Your task to perform on an android device: turn on location history Image 0: 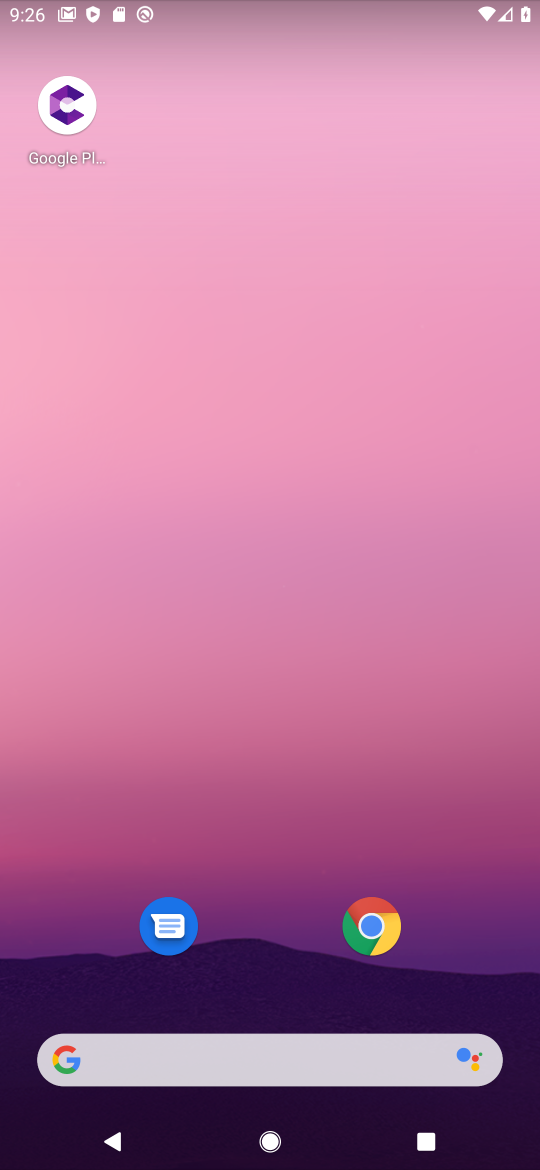
Step 0: drag from (299, 962) to (321, 306)
Your task to perform on an android device: turn on location history Image 1: 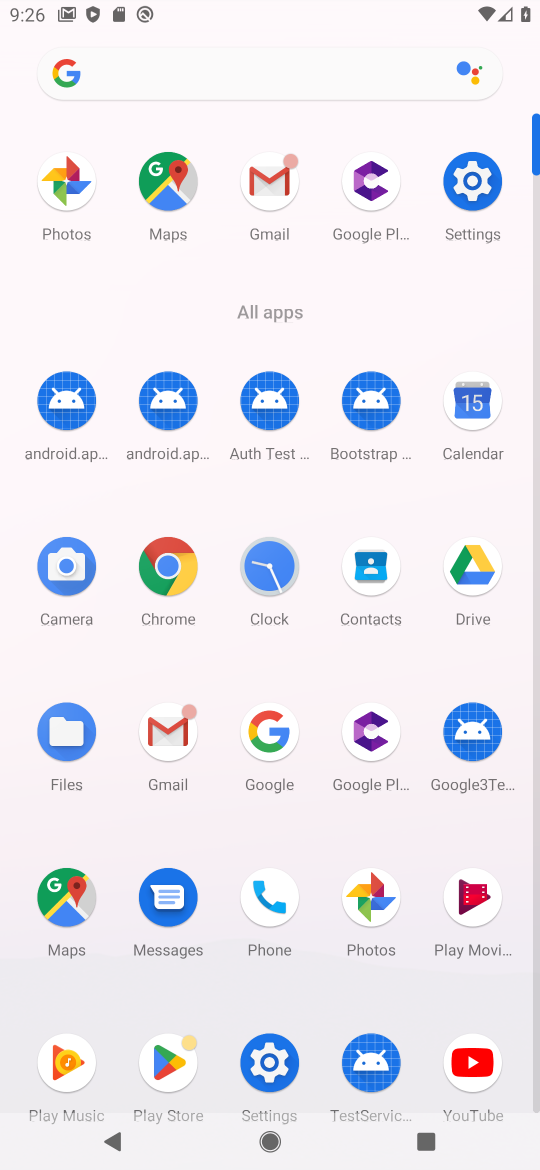
Step 1: click (187, 163)
Your task to perform on an android device: turn on location history Image 2: 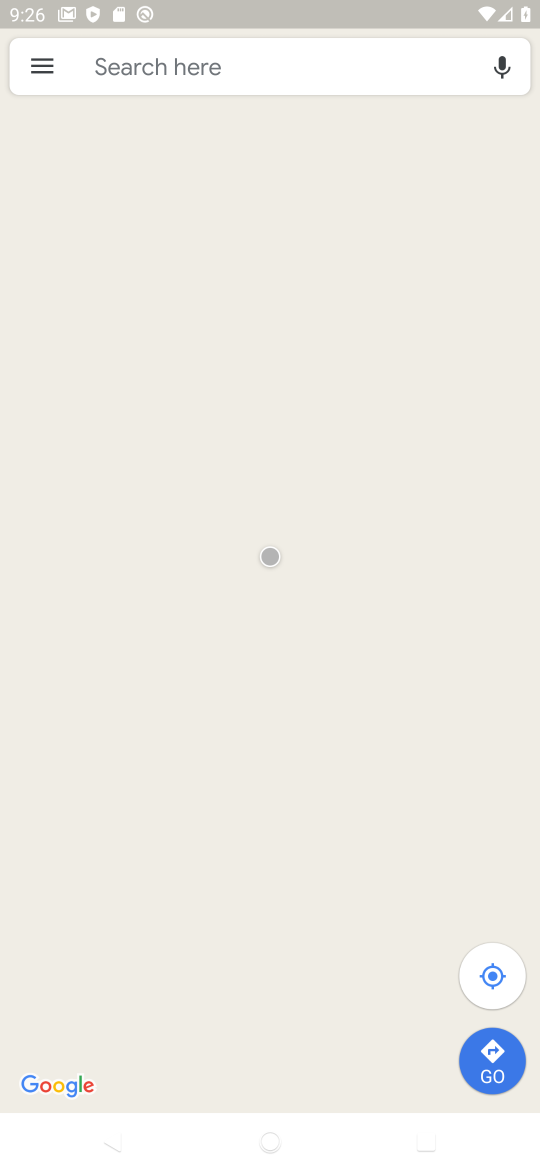
Step 2: click (29, 61)
Your task to perform on an android device: turn on location history Image 3: 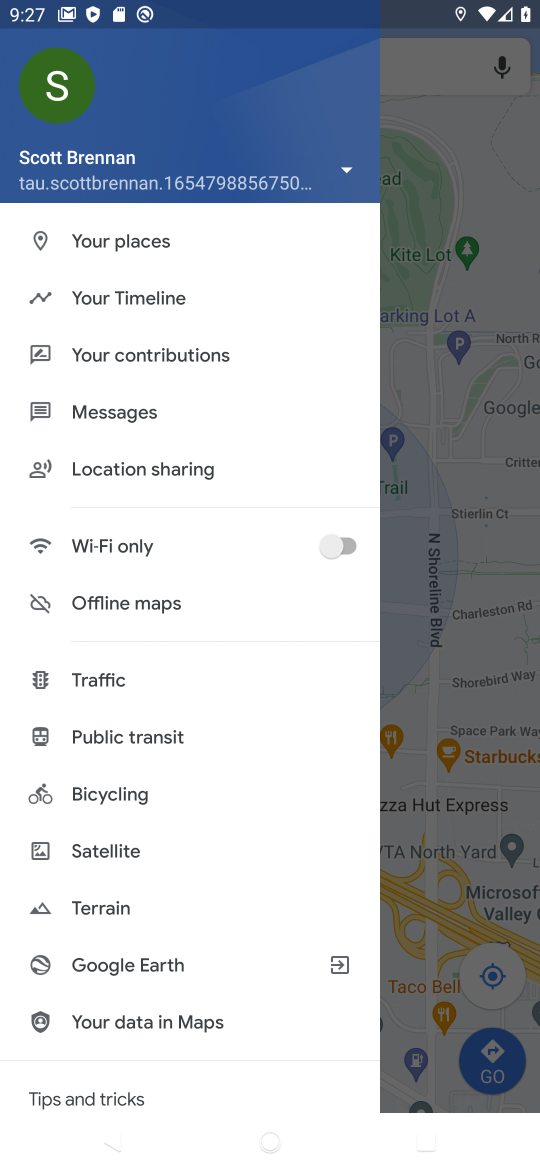
Step 3: drag from (111, 956) to (194, 341)
Your task to perform on an android device: turn on location history Image 4: 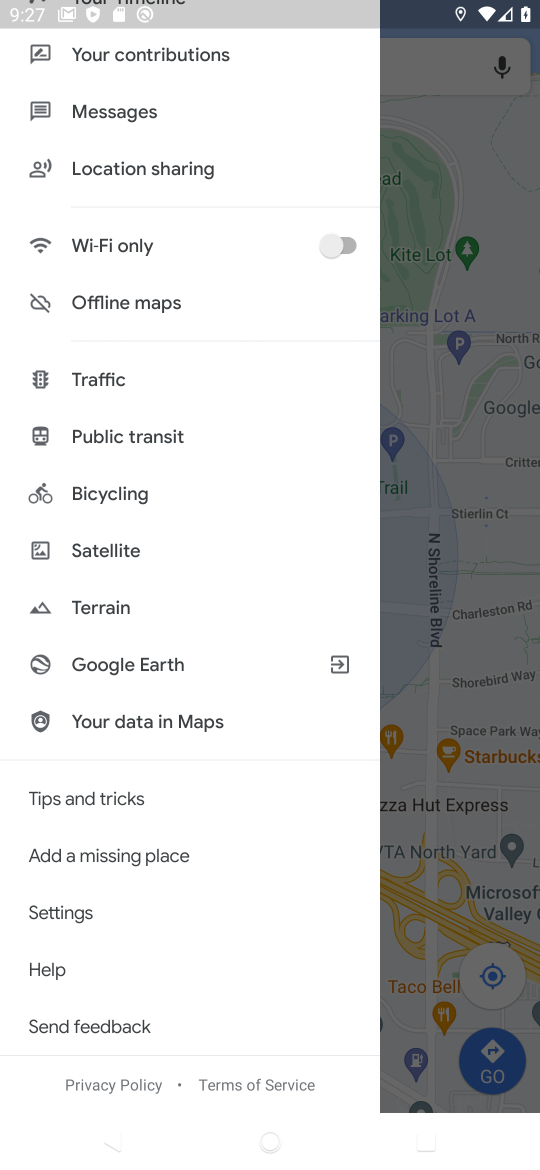
Step 4: drag from (129, 142) to (168, 517)
Your task to perform on an android device: turn on location history Image 5: 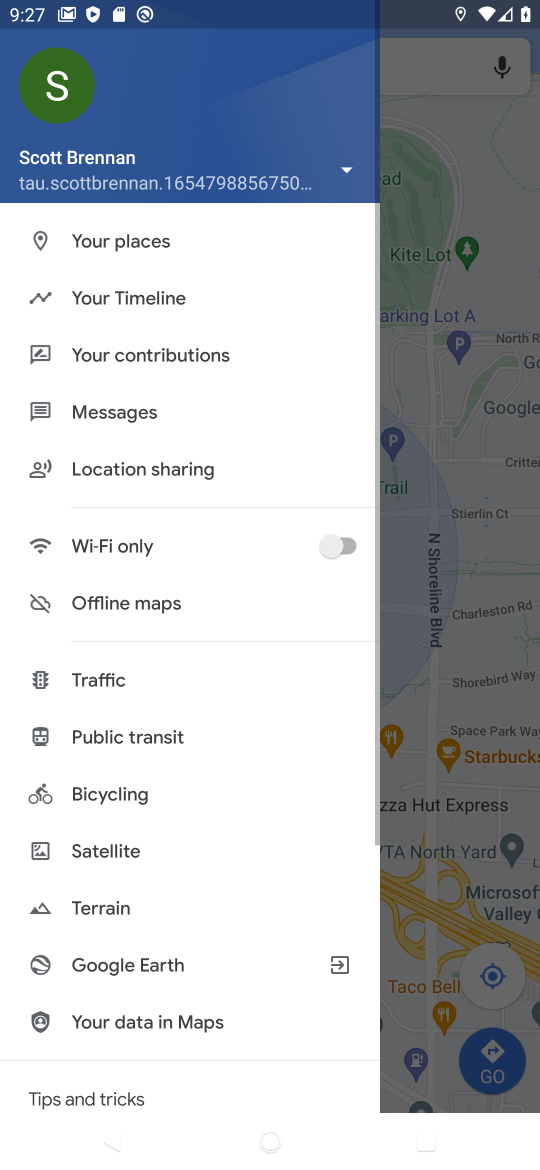
Step 5: click (119, 310)
Your task to perform on an android device: turn on location history Image 6: 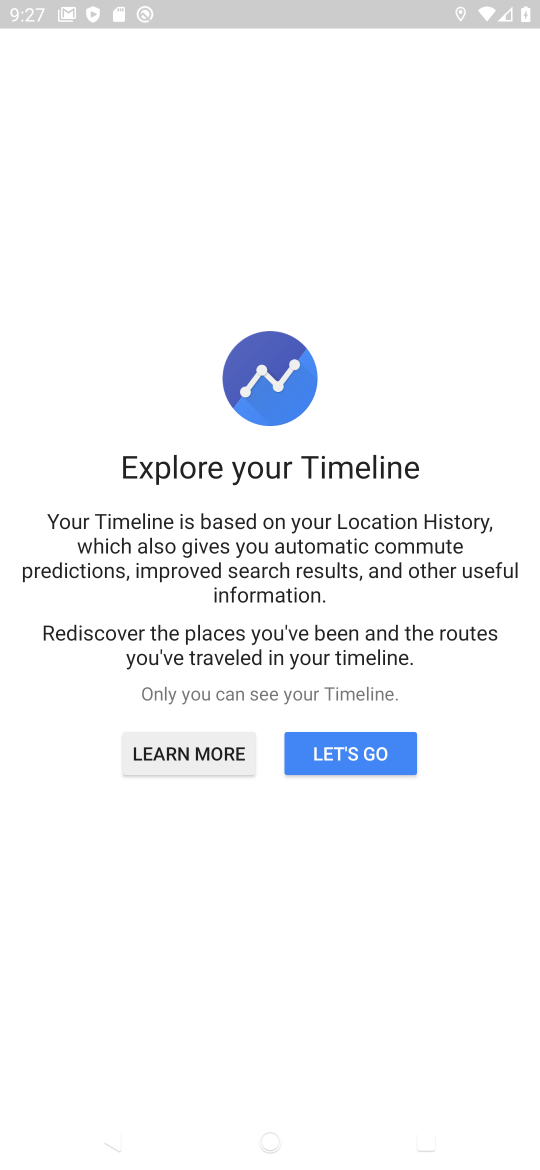
Step 6: click (378, 763)
Your task to perform on an android device: turn on location history Image 7: 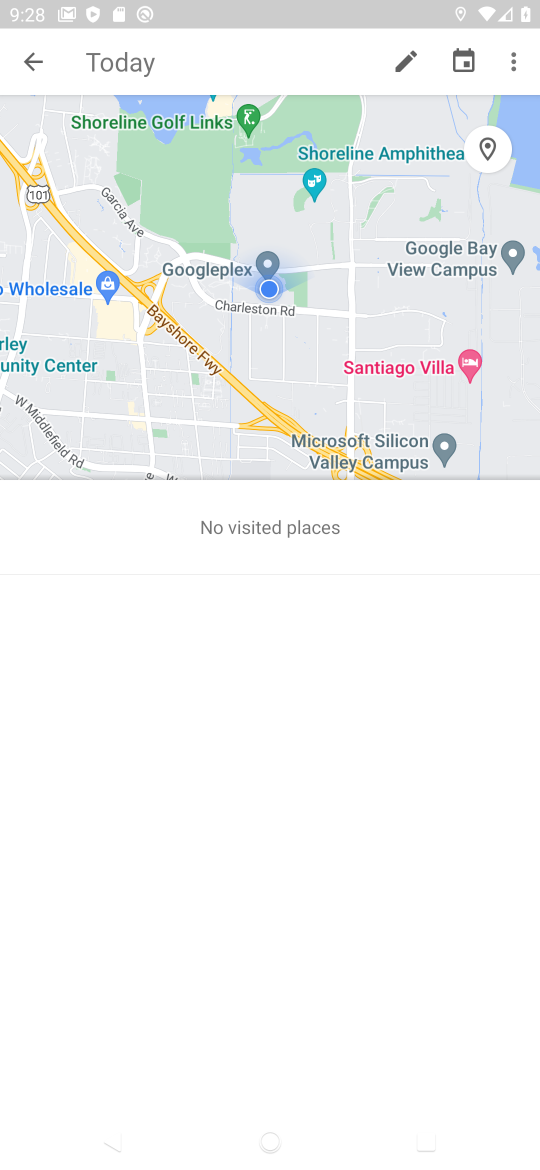
Step 7: click (513, 67)
Your task to perform on an android device: turn on location history Image 8: 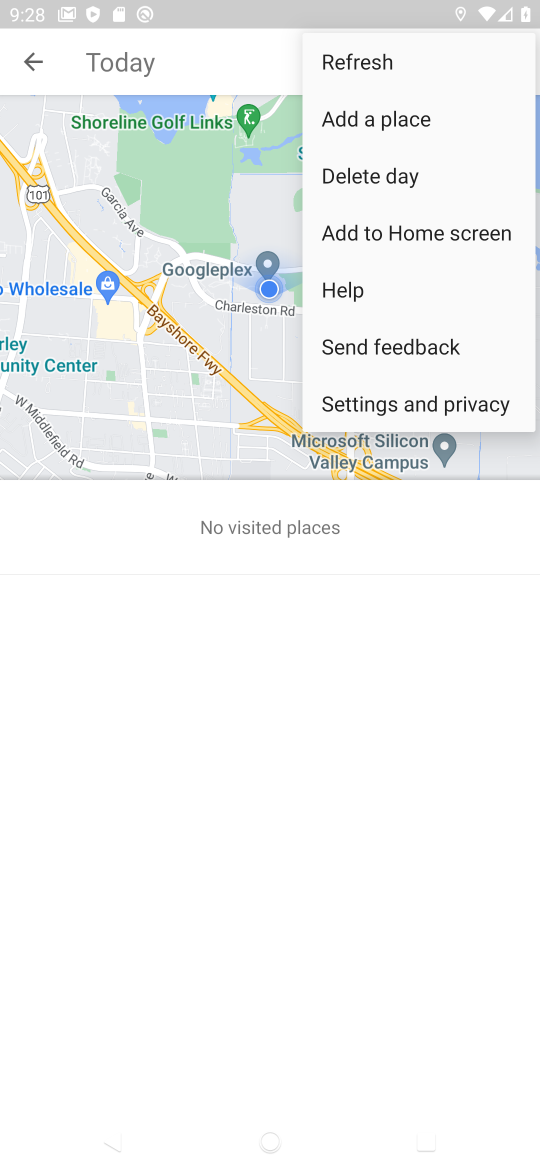
Step 8: click (434, 416)
Your task to perform on an android device: turn on location history Image 9: 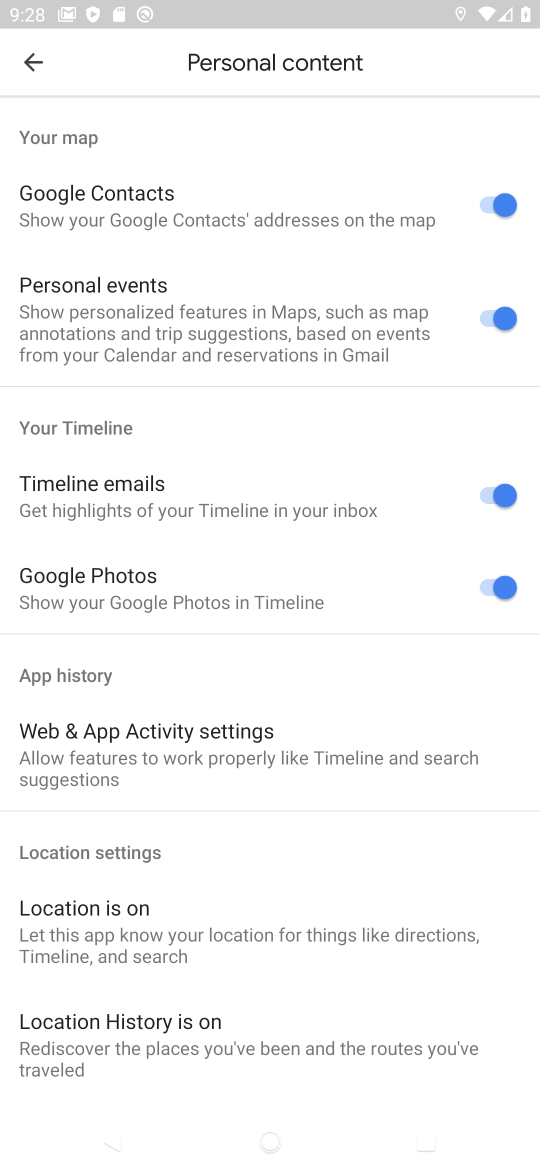
Step 9: click (197, 1063)
Your task to perform on an android device: turn on location history Image 10: 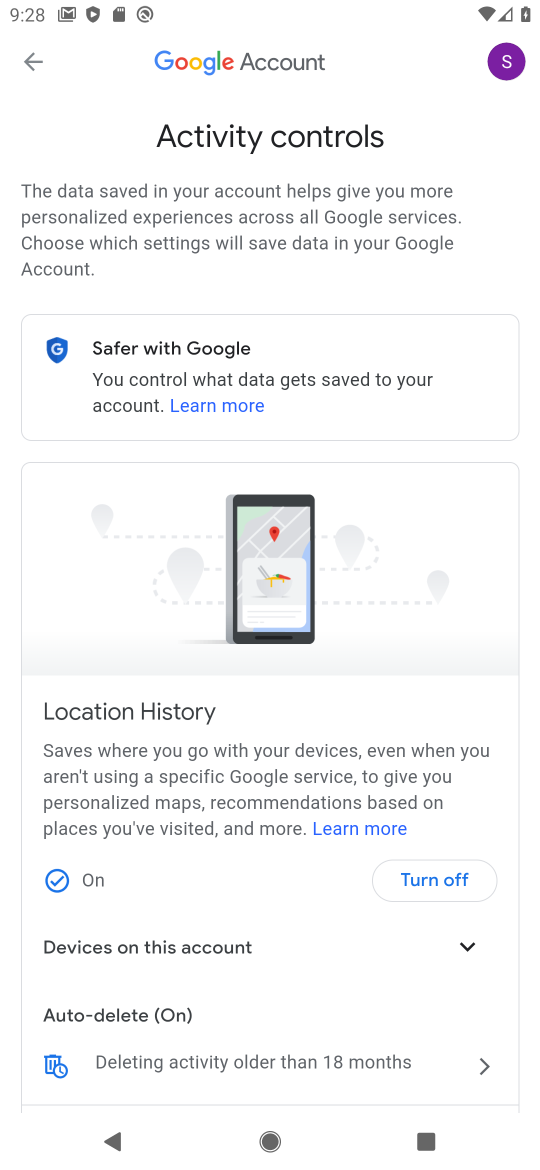
Step 10: task complete